Your task to perform on an android device: Open the map Image 0: 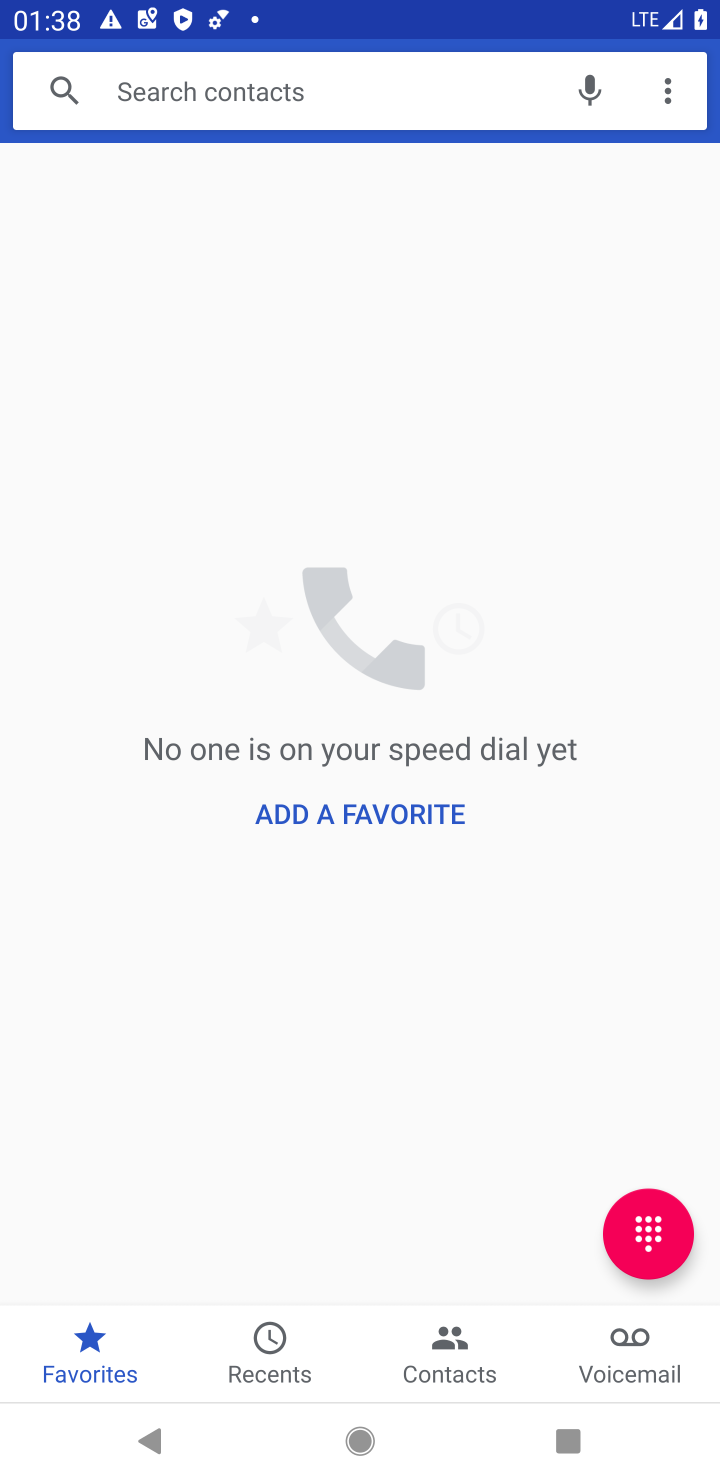
Step 0: click (365, 1430)
Your task to perform on an android device: Open the map Image 1: 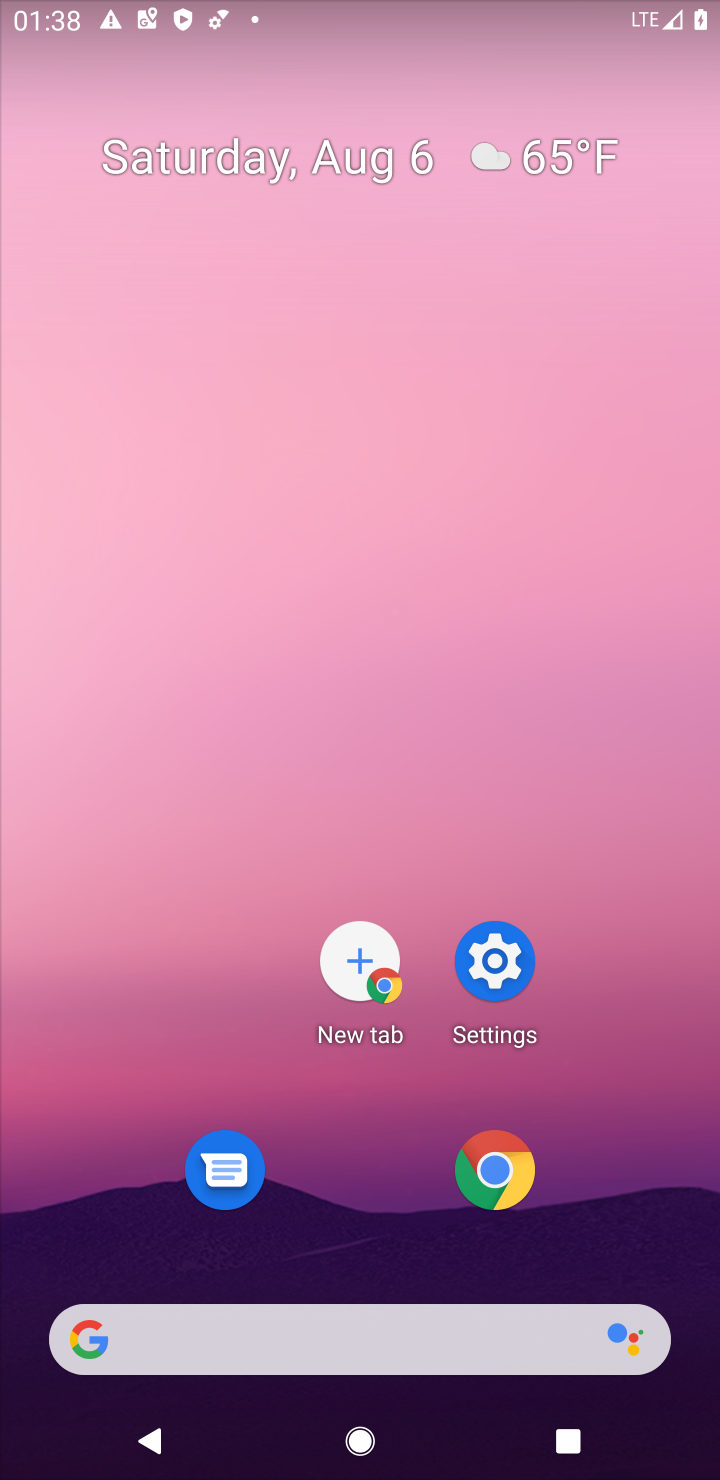
Step 1: drag from (396, 1152) to (447, 491)
Your task to perform on an android device: Open the map Image 2: 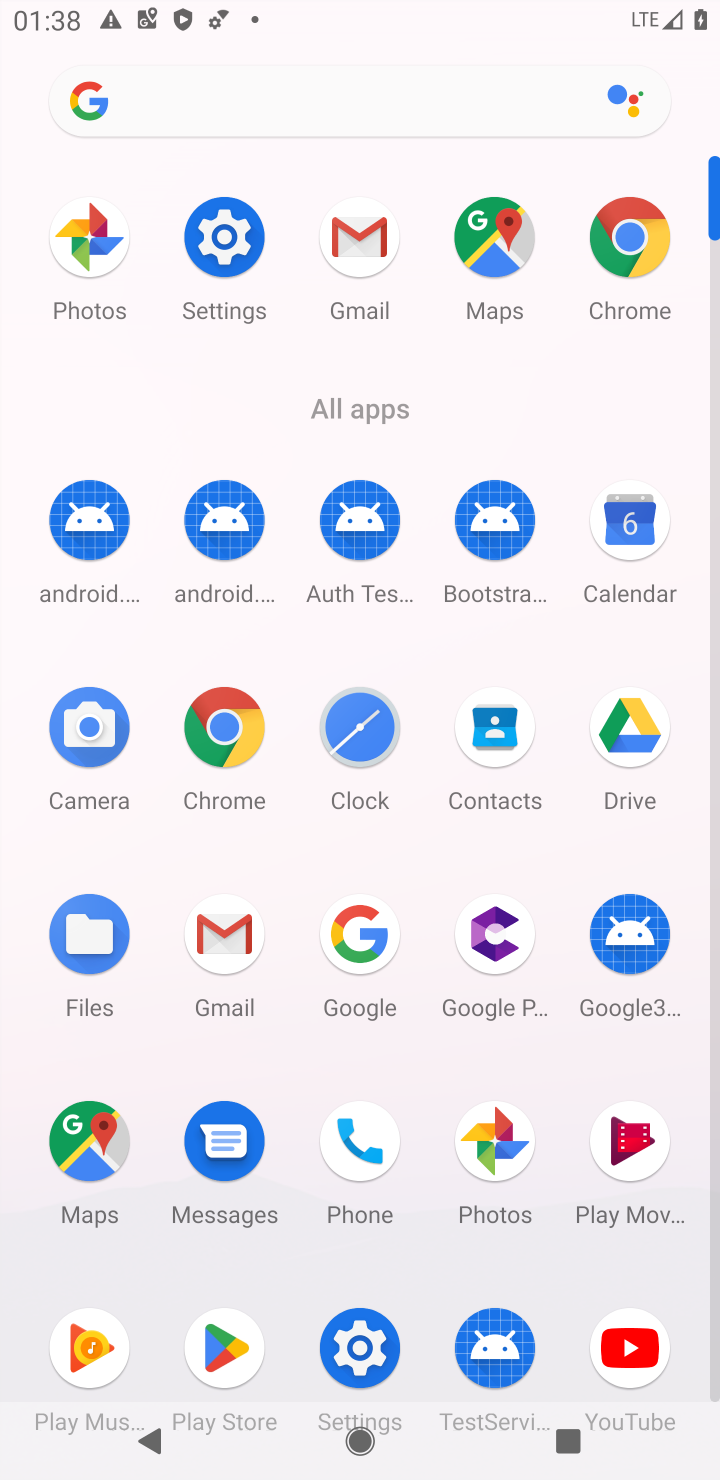
Step 2: click (58, 1155)
Your task to perform on an android device: Open the map Image 3: 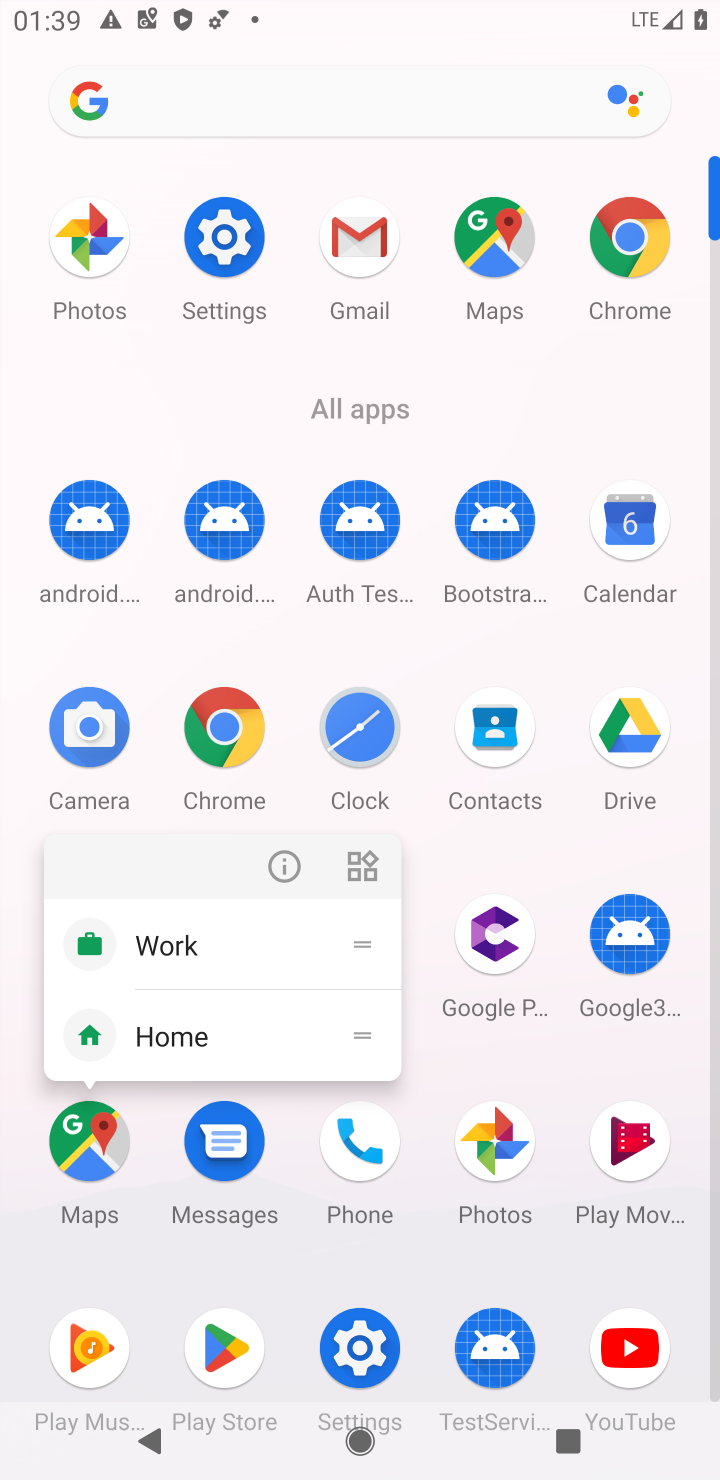
Step 3: task complete